Your task to perform on an android device: Add razer kraken to the cart on ebay Image 0: 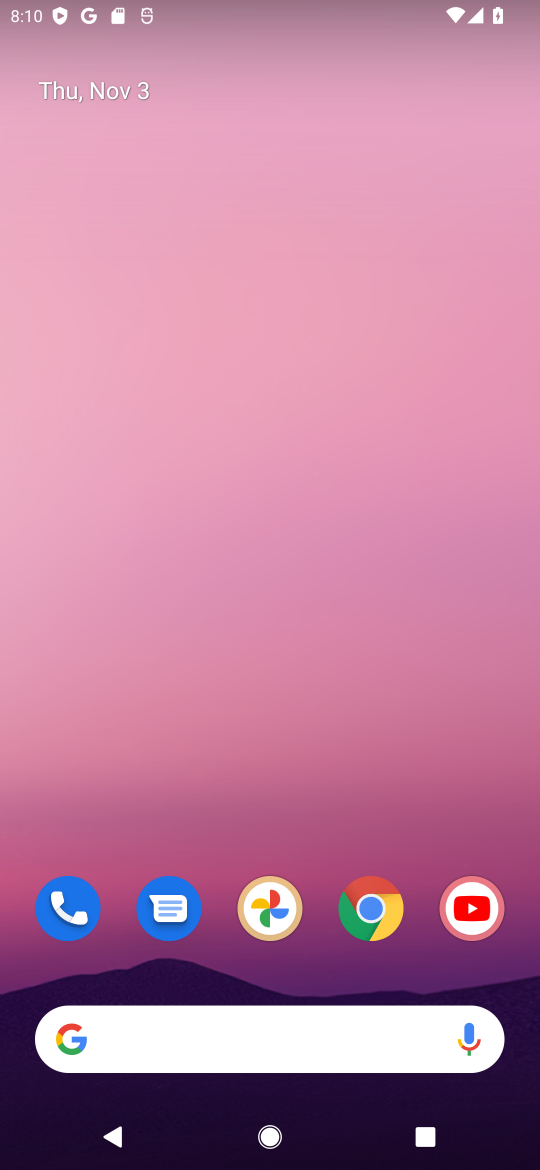
Step 0: click (381, 896)
Your task to perform on an android device: Add razer kraken to the cart on ebay Image 1: 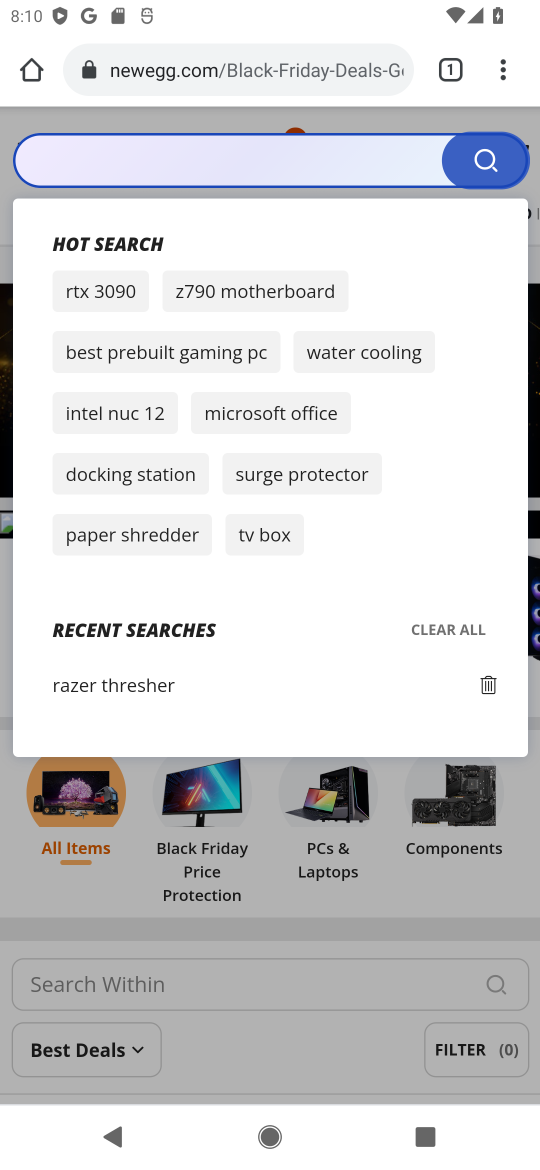
Step 1: click (31, 64)
Your task to perform on an android device: Add razer kraken to the cart on ebay Image 2: 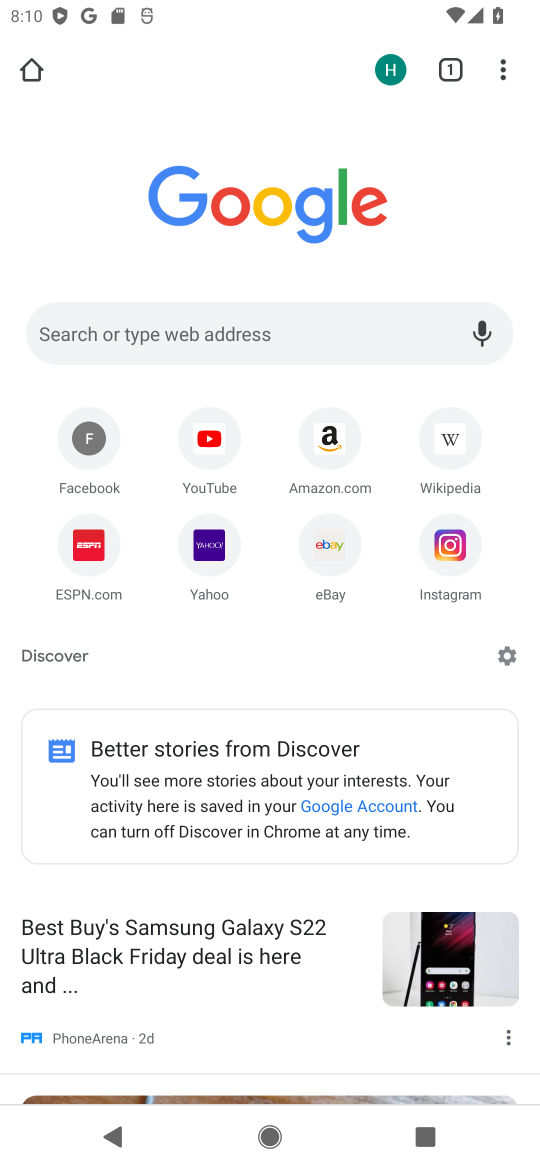
Step 2: click (283, 331)
Your task to perform on an android device: Add razer kraken to the cart on ebay Image 3: 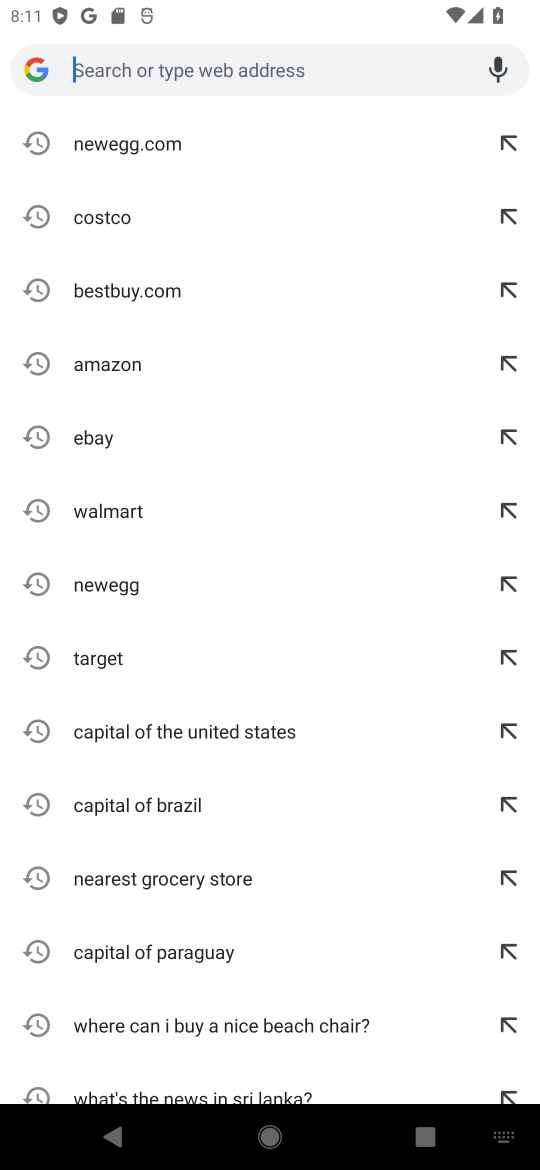
Step 3: click (101, 431)
Your task to perform on an android device: Add razer kraken to the cart on ebay Image 4: 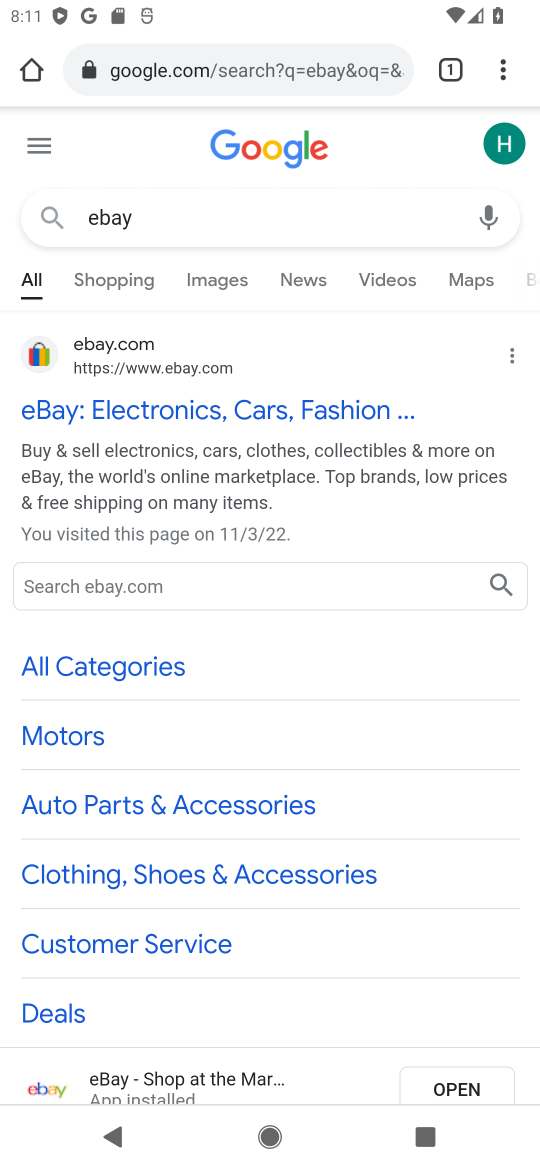
Step 4: click (182, 359)
Your task to perform on an android device: Add razer kraken to the cart on ebay Image 5: 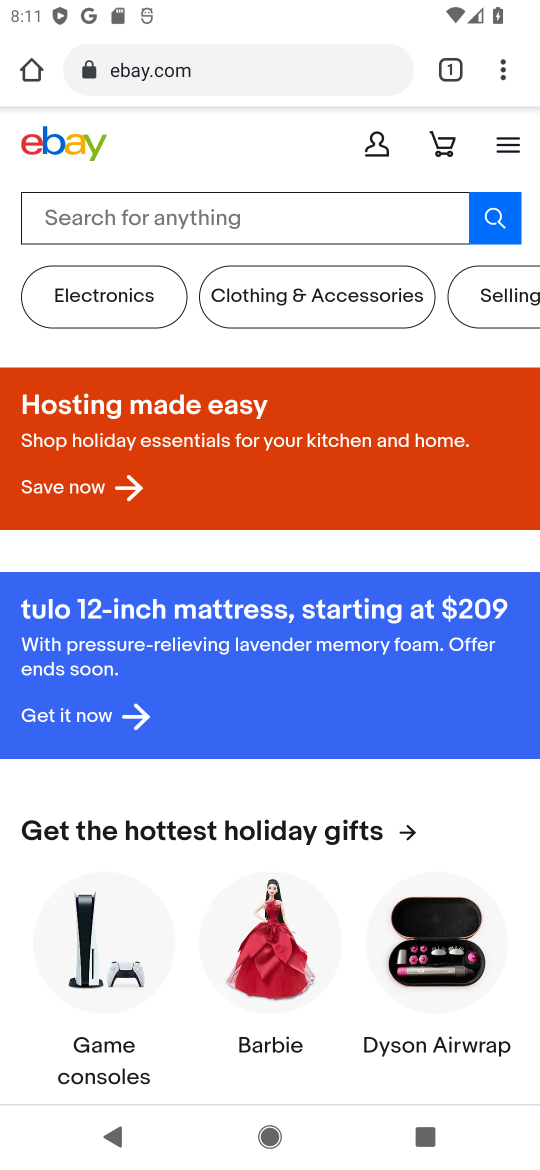
Step 5: click (306, 225)
Your task to perform on an android device: Add razer kraken to the cart on ebay Image 6: 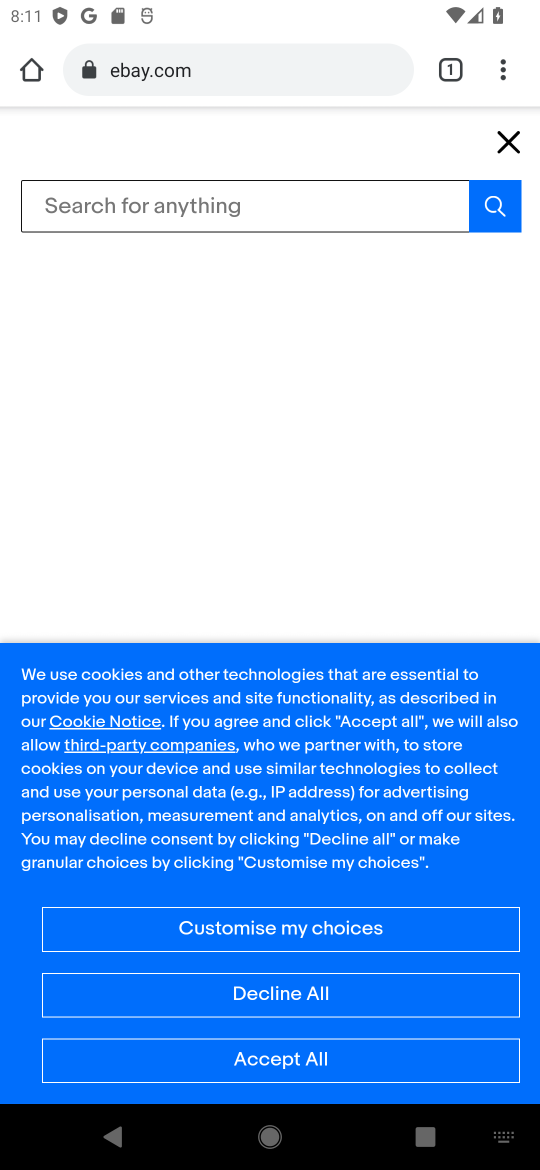
Step 6: type "razer kraken"
Your task to perform on an android device: Add razer kraken to the cart on ebay Image 7: 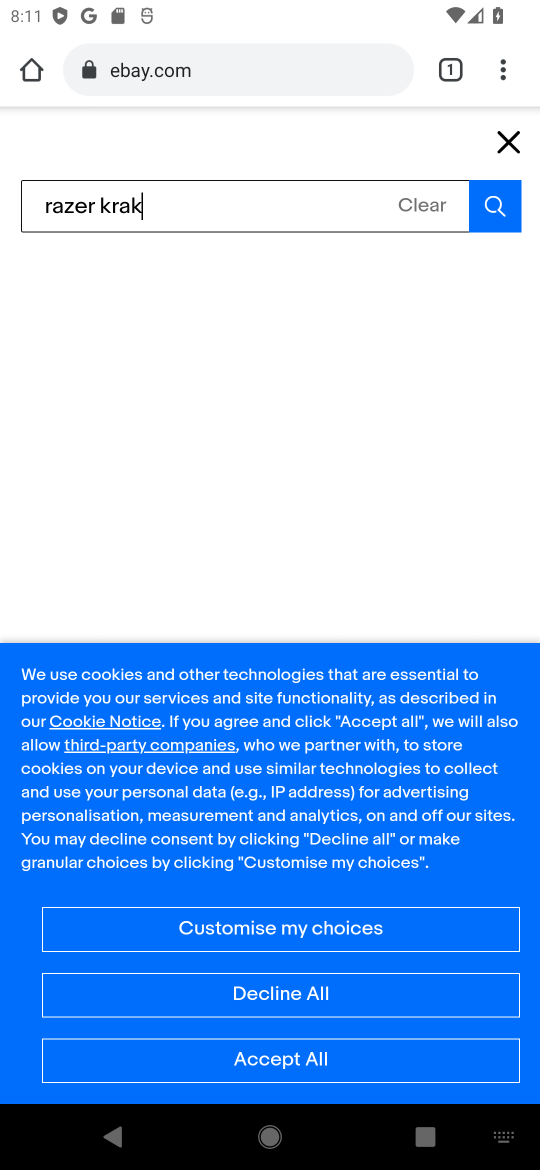
Step 7: press enter
Your task to perform on an android device: Add razer kraken to the cart on ebay Image 8: 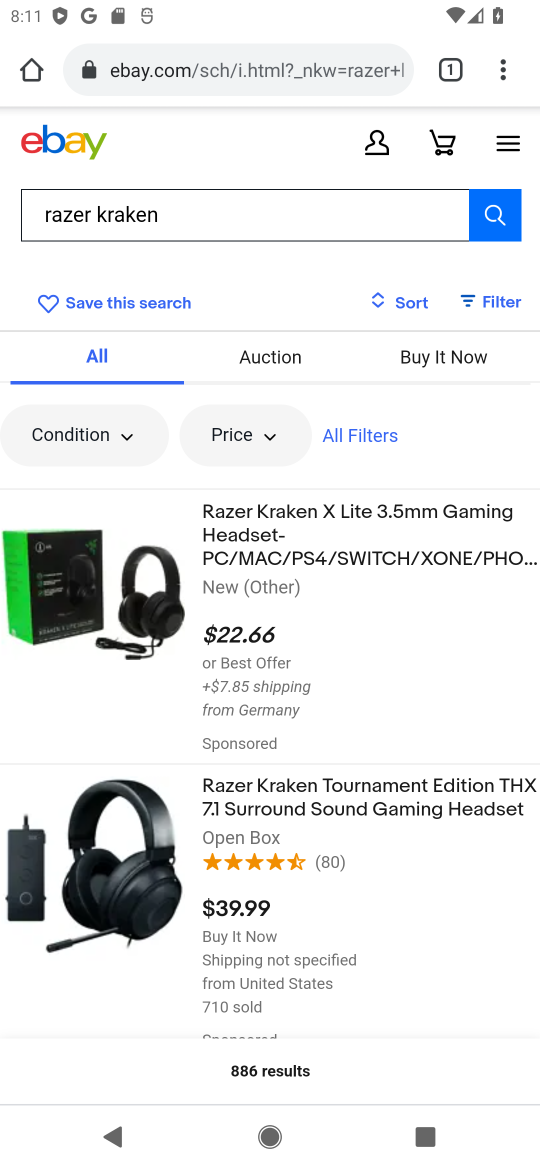
Step 8: click (45, 573)
Your task to perform on an android device: Add razer kraken to the cart on ebay Image 9: 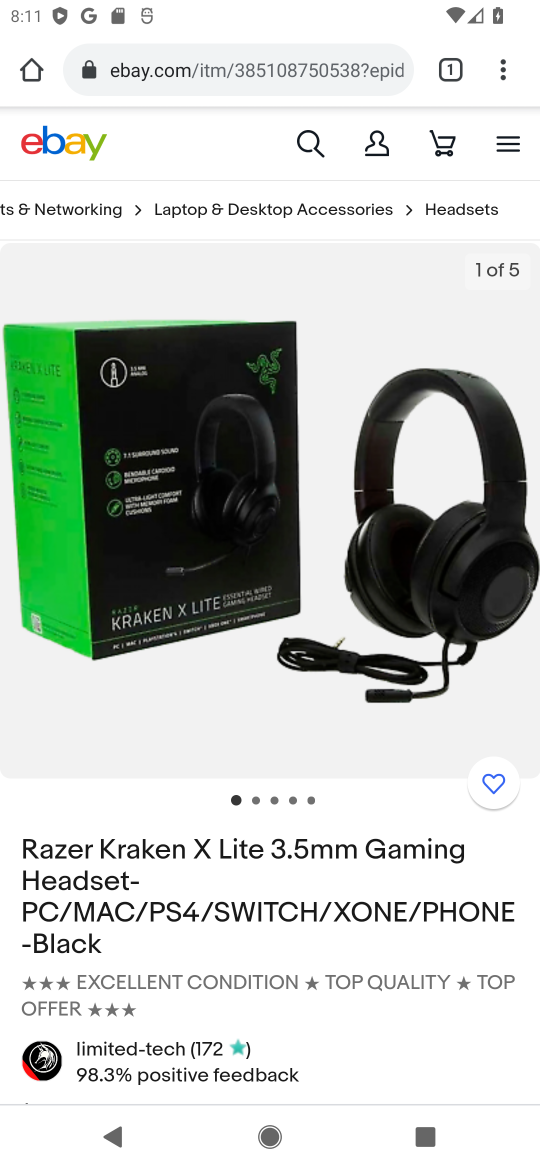
Step 9: drag from (283, 910) to (302, 427)
Your task to perform on an android device: Add razer kraken to the cart on ebay Image 10: 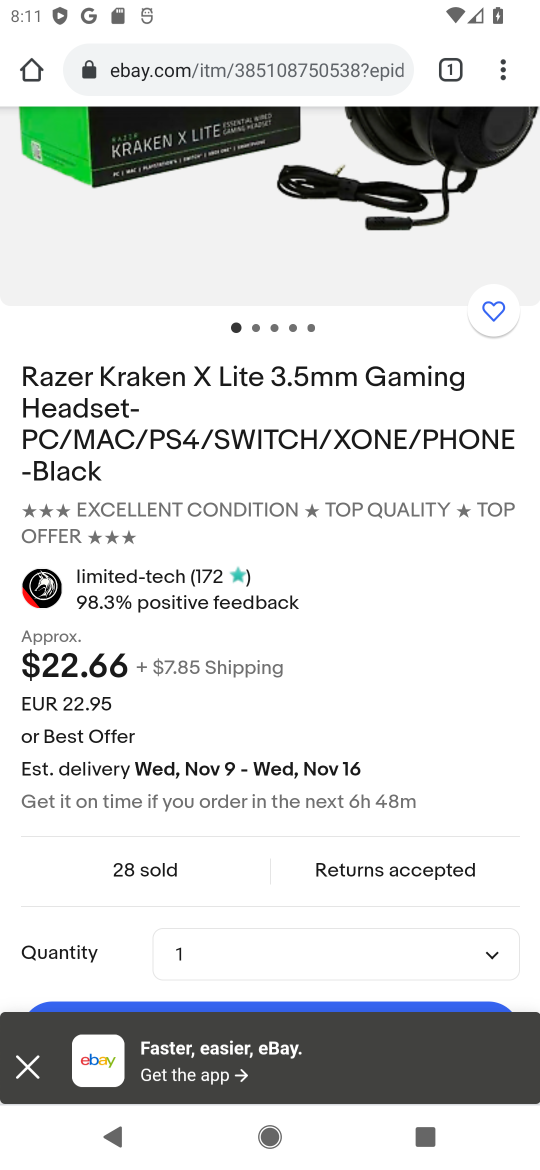
Step 10: drag from (385, 850) to (381, 456)
Your task to perform on an android device: Add razer kraken to the cart on ebay Image 11: 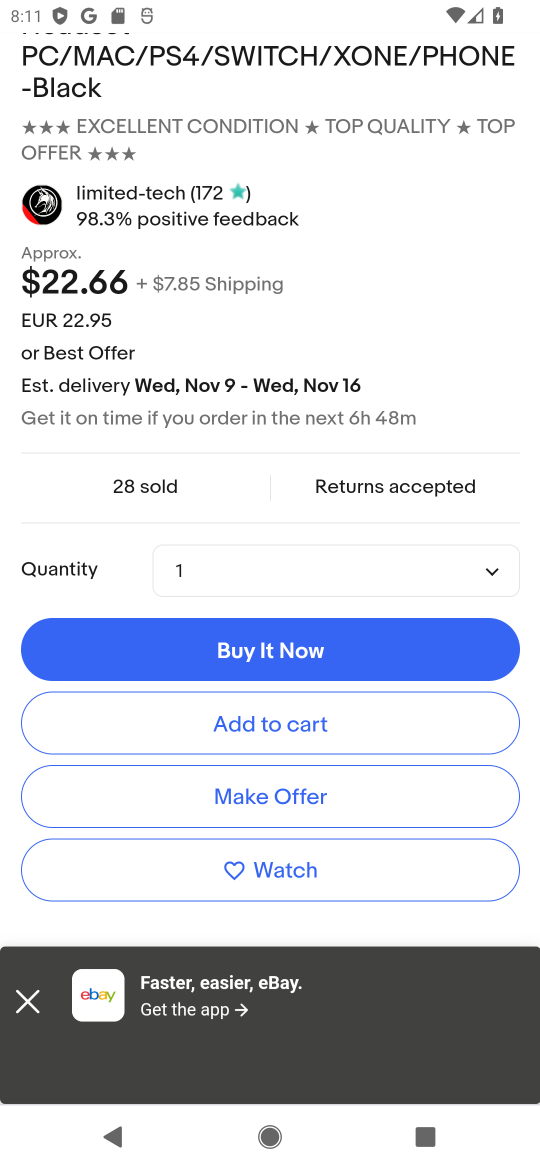
Step 11: click (308, 725)
Your task to perform on an android device: Add razer kraken to the cart on ebay Image 12: 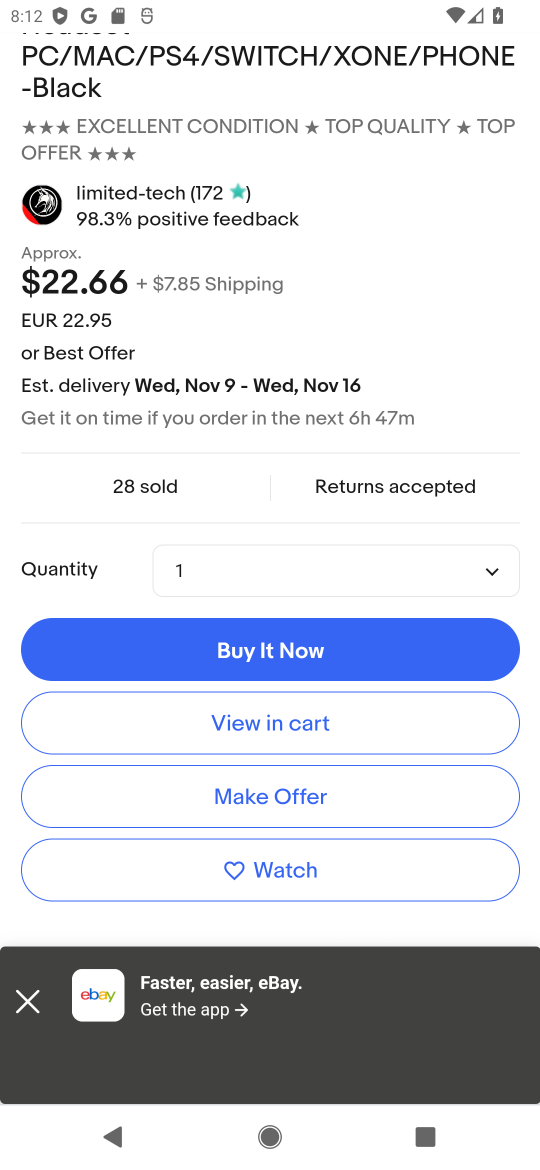
Step 12: task complete